Your task to perform on an android device: Open my contact list Image 0: 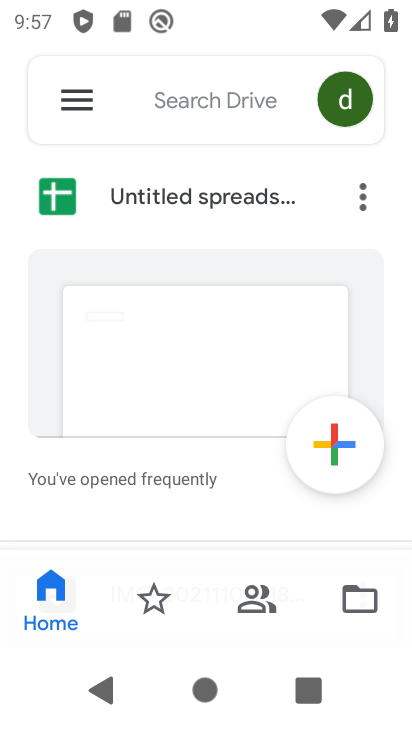
Step 0: press home button
Your task to perform on an android device: Open my contact list Image 1: 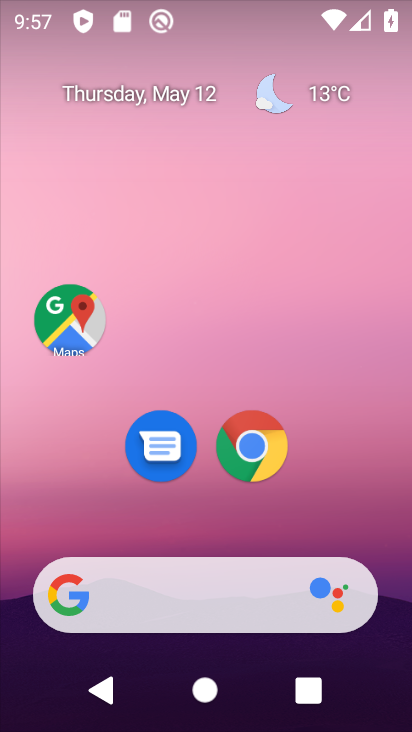
Step 1: drag from (204, 534) to (284, 45)
Your task to perform on an android device: Open my contact list Image 2: 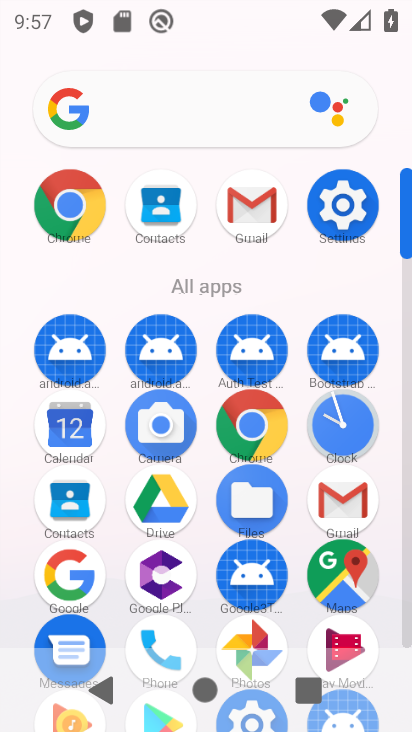
Step 2: drag from (104, 584) to (165, 282)
Your task to perform on an android device: Open my contact list Image 3: 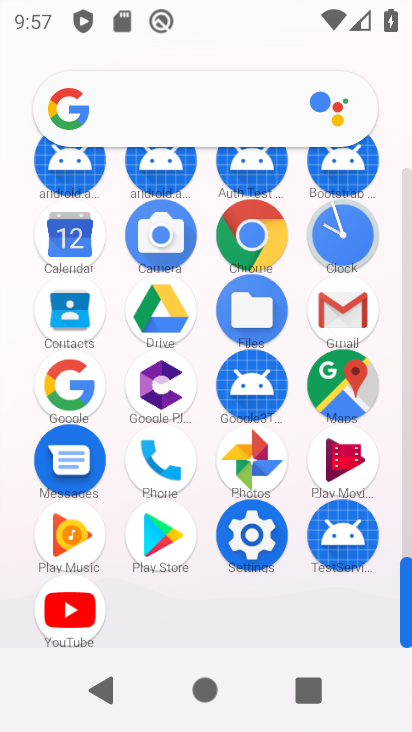
Step 3: click (80, 327)
Your task to perform on an android device: Open my contact list Image 4: 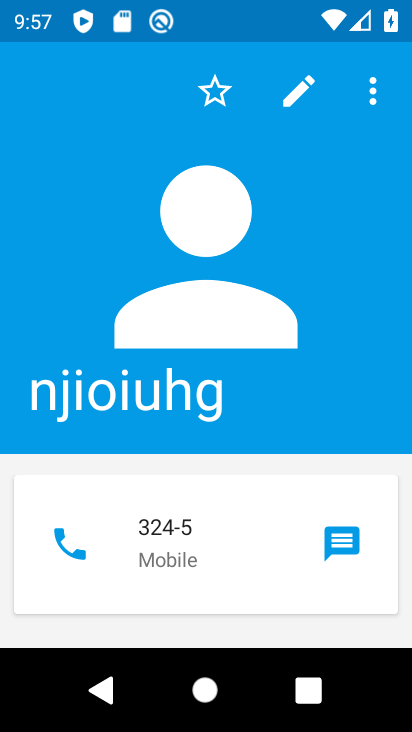
Step 4: task complete